Your task to perform on an android device: change notification settings in the gmail app Image 0: 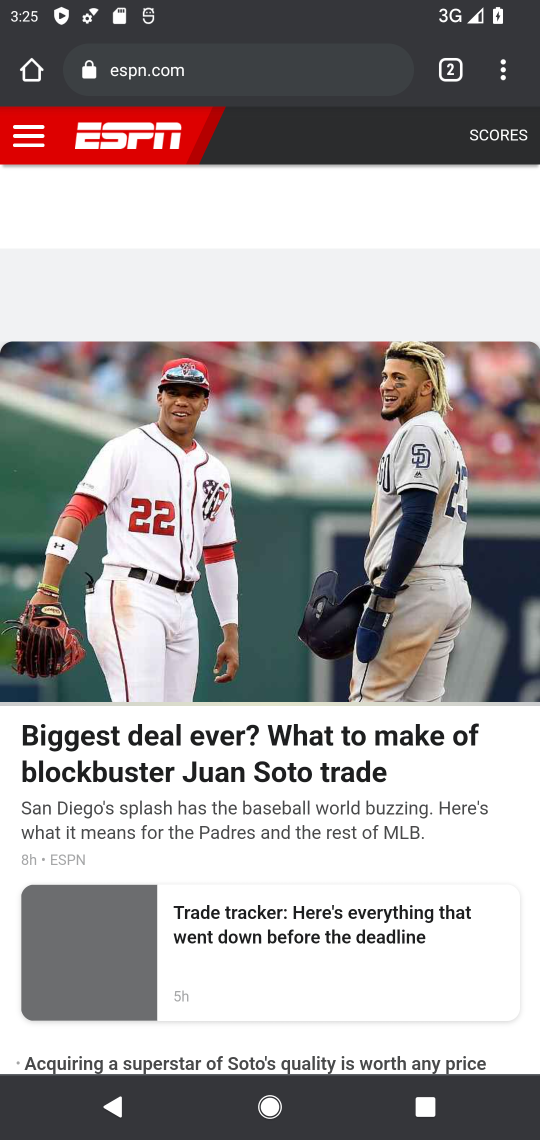
Step 0: press home button
Your task to perform on an android device: change notification settings in the gmail app Image 1: 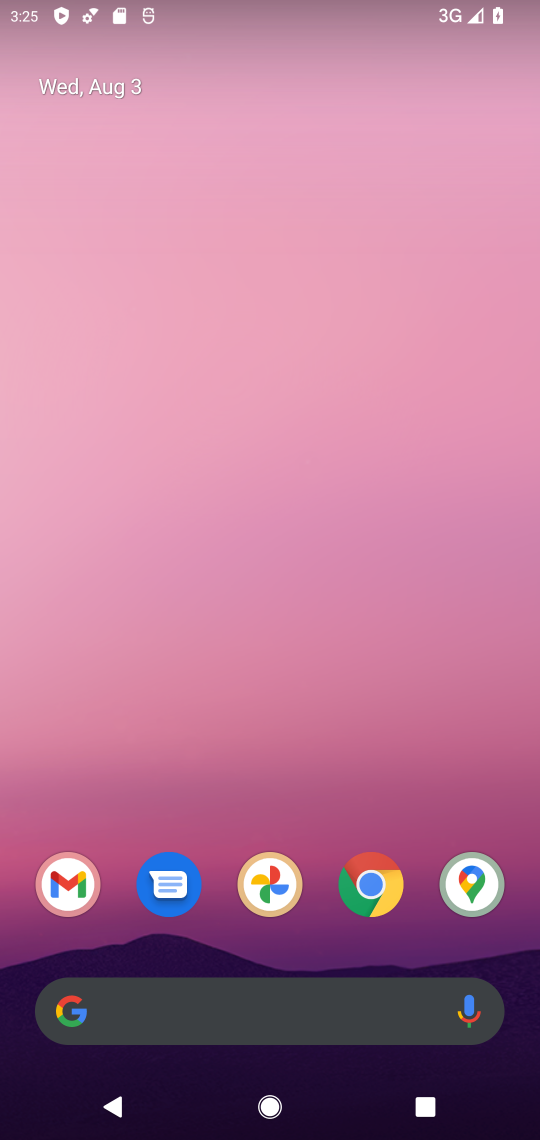
Step 1: click (81, 864)
Your task to perform on an android device: change notification settings in the gmail app Image 2: 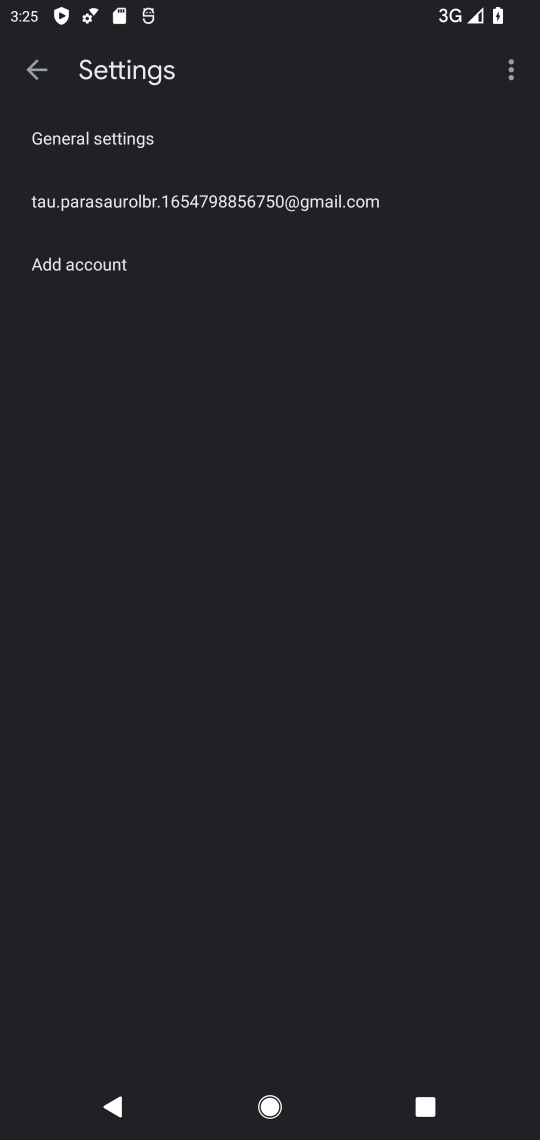
Step 2: click (497, 83)
Your task to perform on an android device: change notification settings in the gmail app Image 3: 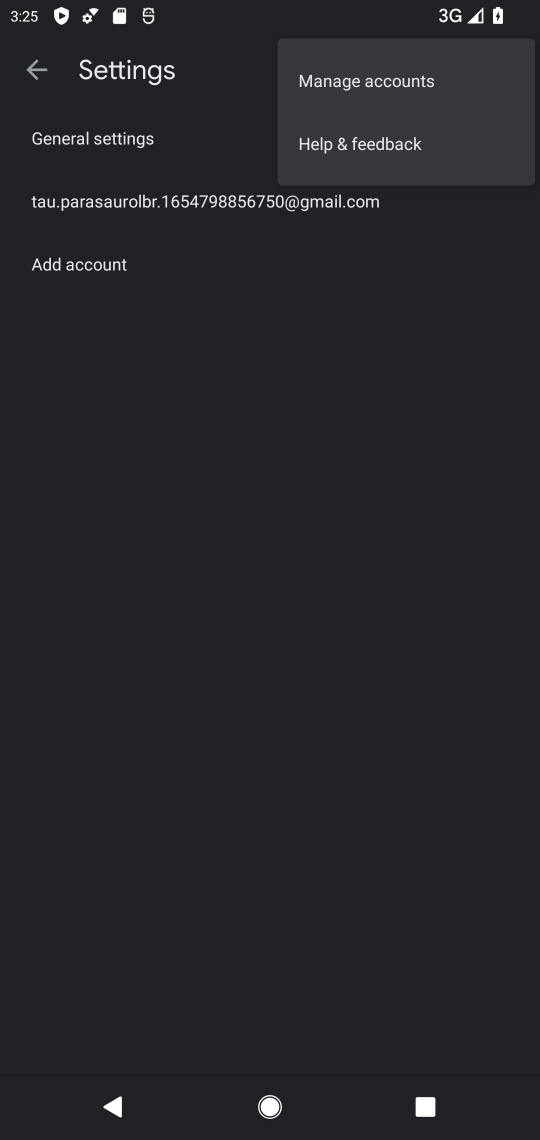
Step 3: click (303, 281)
Your task to perform on an android device: change notification settings in the gmail app Image 4: 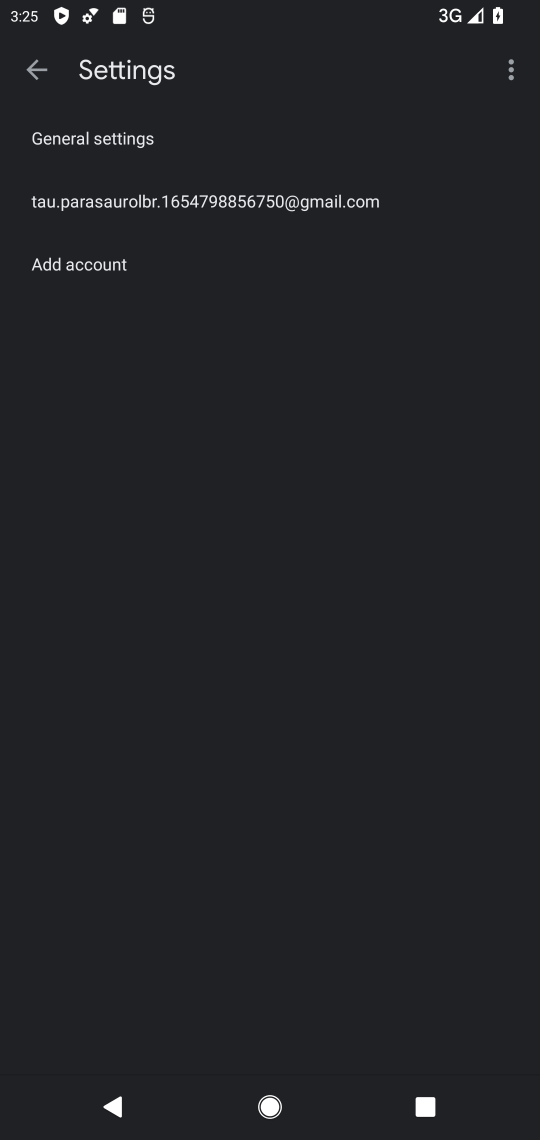
Step 4: click (146, 130)
Your task to perform on an android device: change notification settings in the gmail app Image 5: 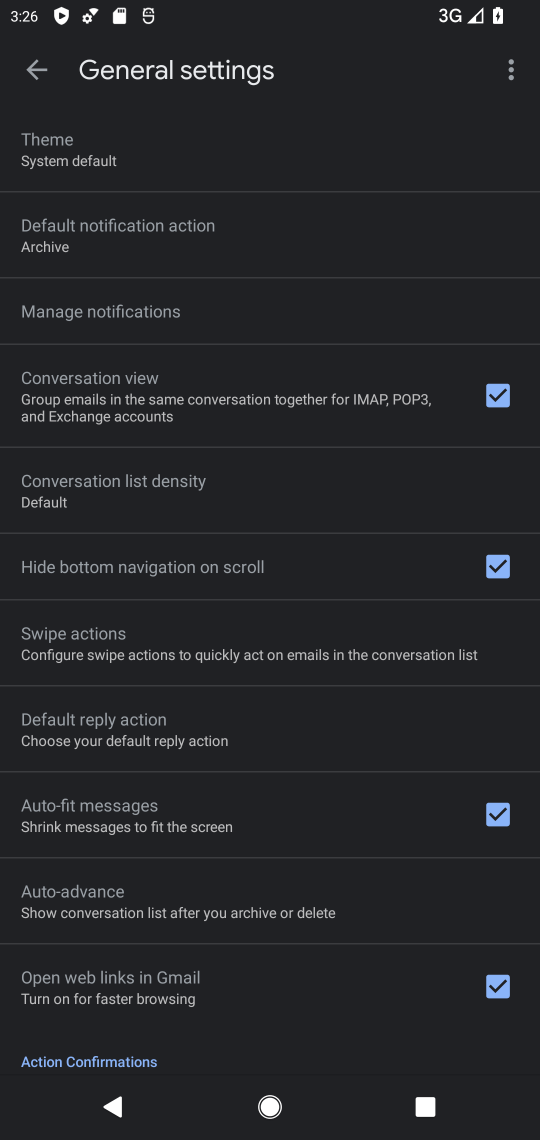
Step 5: click (150, 326)
Your task to perform on an android device: change notification settings in the gmail app Image 6: 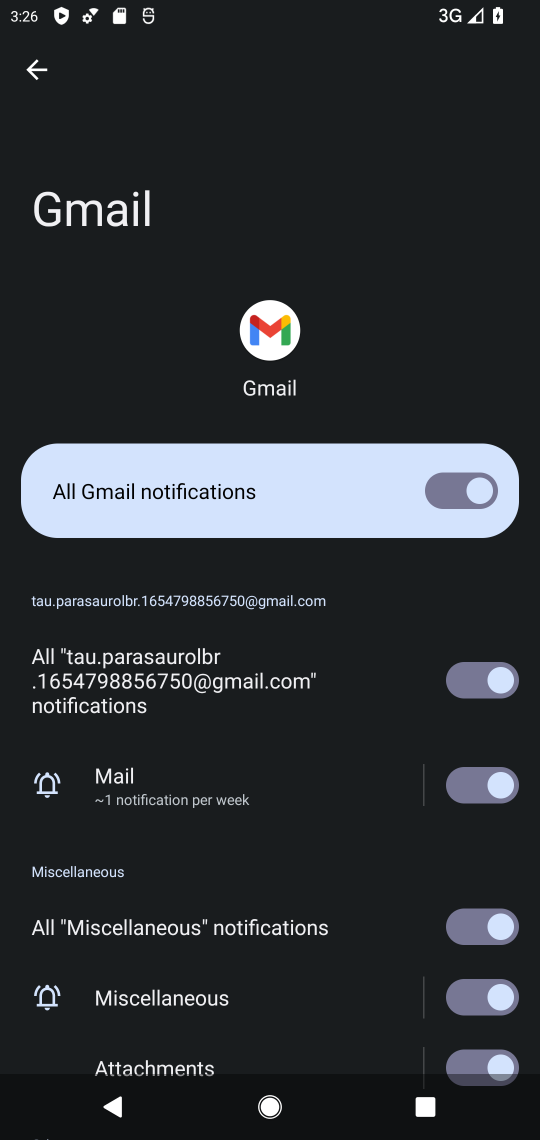
Step 6: task complete